Your task to perform on an android device: check data usage Image 0: 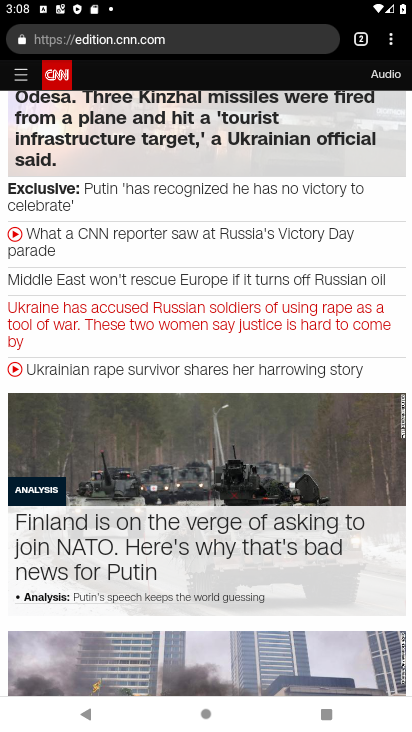
Step 0: press home button
Your task to perform on an android device: check data usage Image 1: 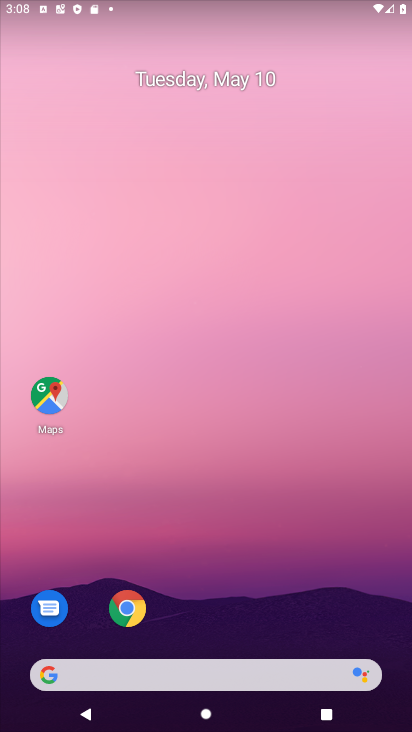
Step 1: drag from (391, 645) to (275, 59)
Your task to perform on an android device: check data usage Image 2: 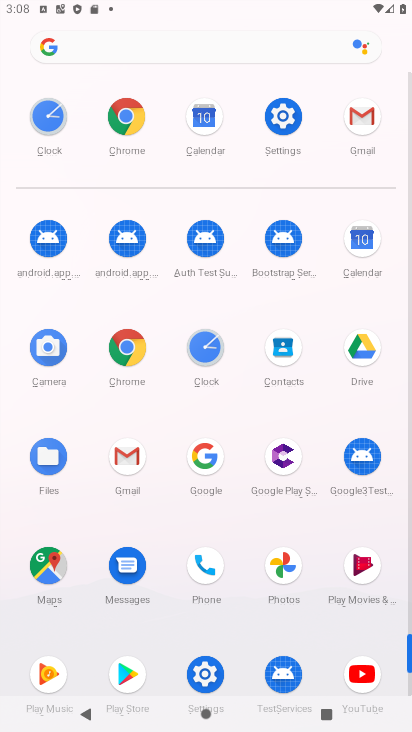
Step 2: click (410, 689)
Your task to perform on an android device: check data usage Image 3: 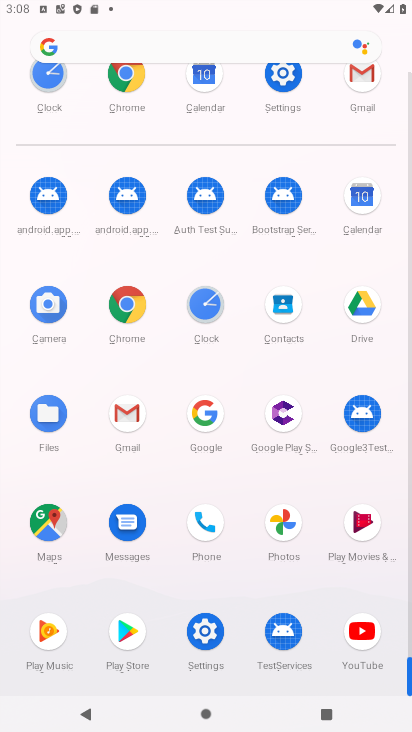
Step 3: click (204, 632)
Your task to perform on an android device: check data usage Image 4: 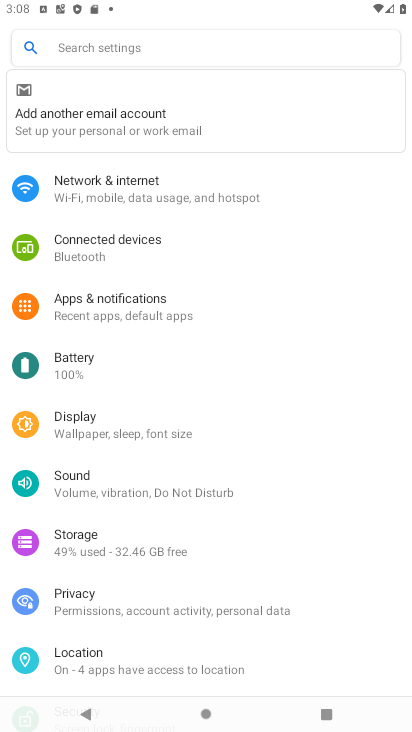
Step 4: click (94, 180)
Your task to perform on an android device: check data usage Image 5: 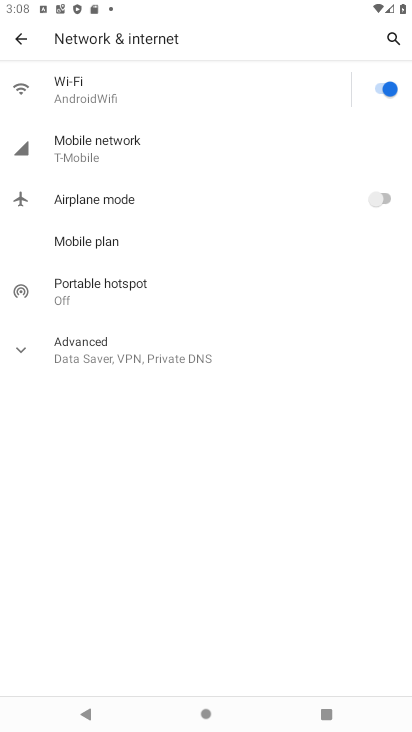
Step 5: click (78, 138)
Your task to perform on an android device: check data usage Image 6: 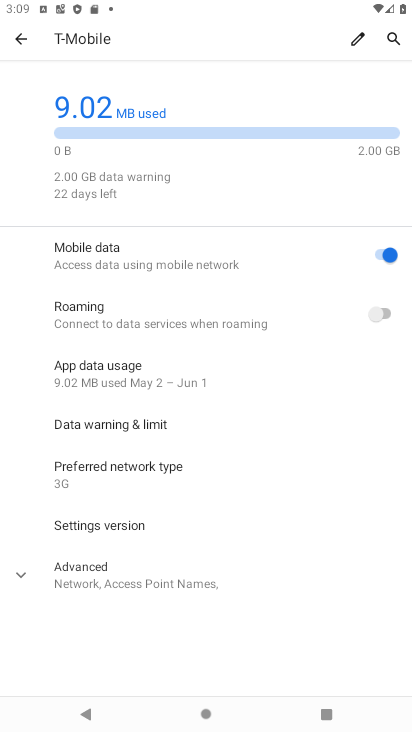
Step 6: click (20, 571)
Your task to perform on an android device: check data usage Image 7: 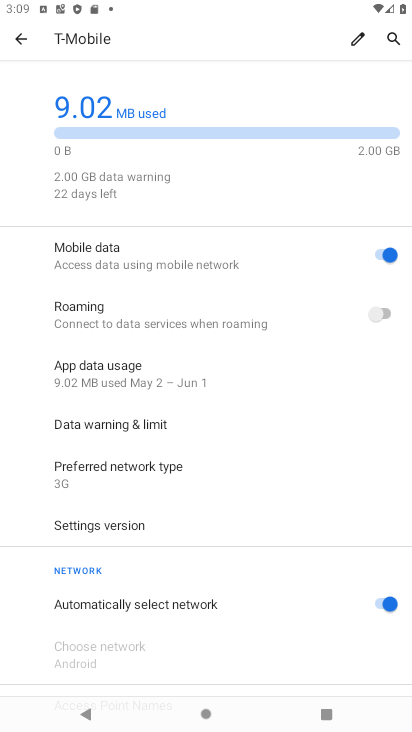
Step 7: task complete